Your task to perform on an android device: Open settings Image 0: 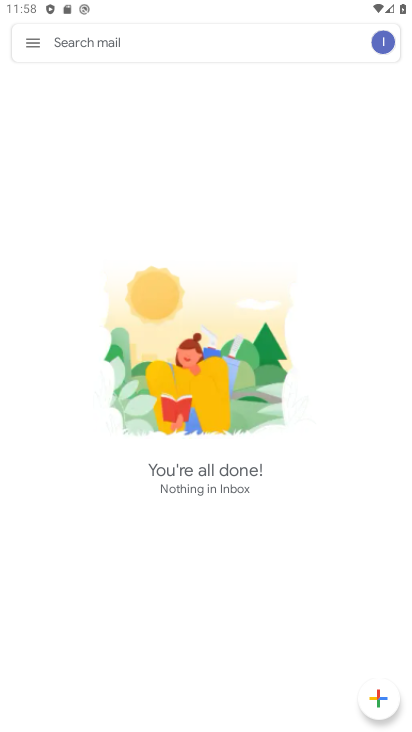
Step 0: press home button
Your task to perform on an android device: Open settings Image 1: 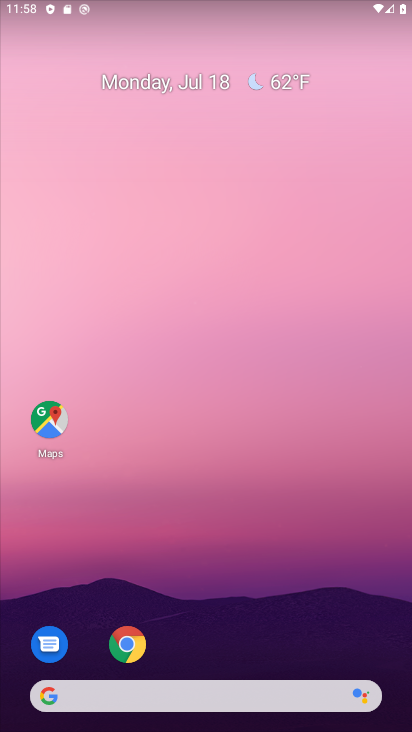
Step 1: drag from (399, 701) to (337, 0)
Your task to perform on an android device: Open settings Image 2: 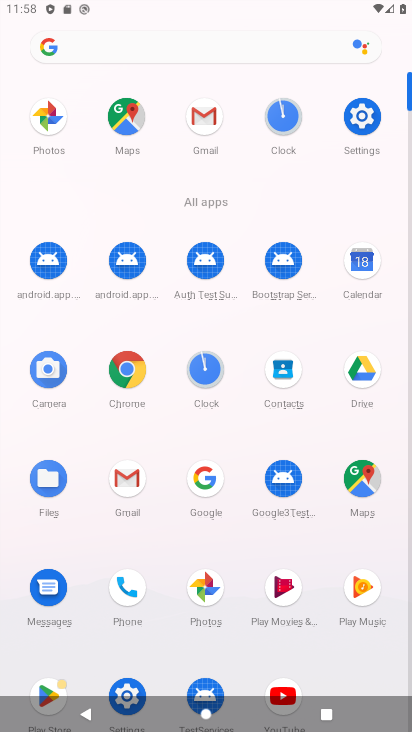
Step 2: click (365, 107)
Your task to perform on an android device: Open settings Image 3: 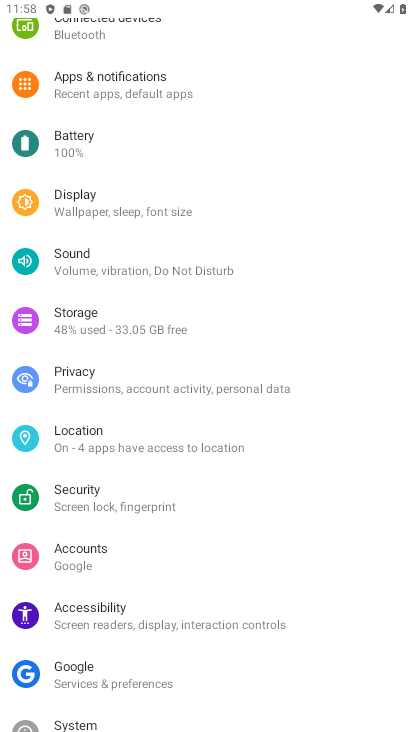
Step 3: task complete